Your task to perform on an android device: Go to network settings Image 0: 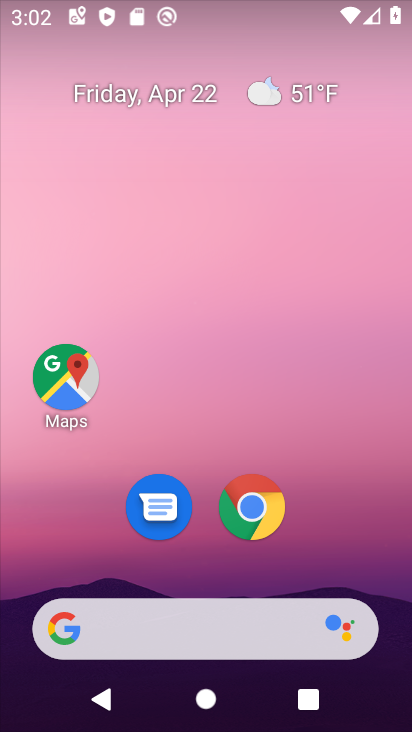
Step 0: drag from (200, 551) to (268, 107)
Your task to perform on an android device: Go to network settings Image 1: 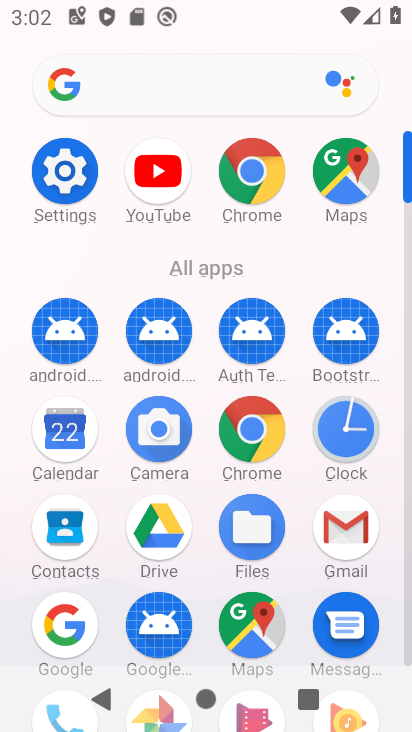
Step 1: click (59, 168)
Your task to perform on an android device: Go to network settings Image 2: 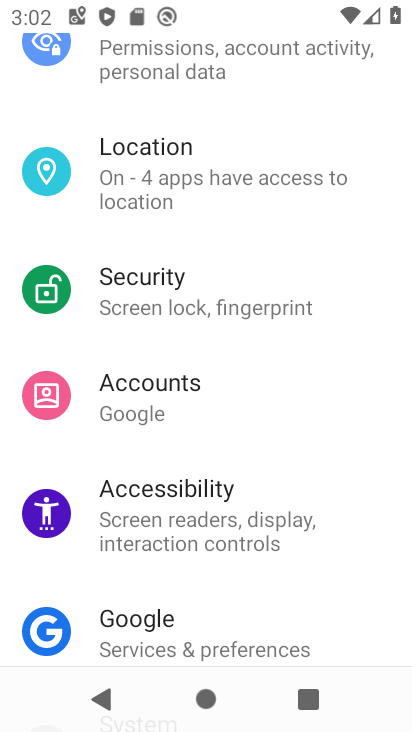
Step 2: drag from (239, 209) to (200, 686)
Your task to perform on an android device: Go to network settings Image 3: 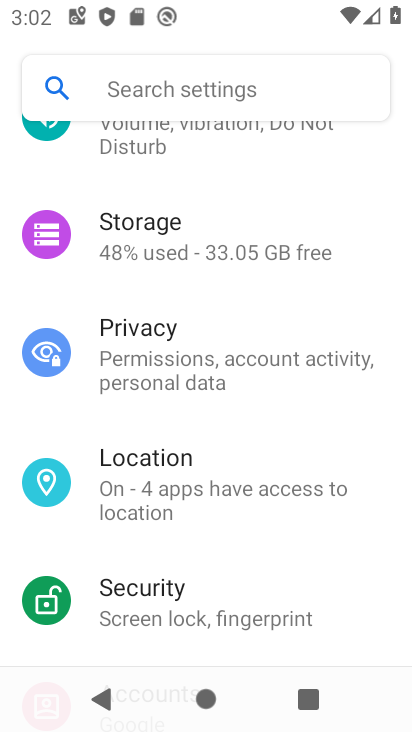
Step 3: drag from (226, 254) to (201, 700)
Your task to perform on an android device: Go to network settings Image 4: 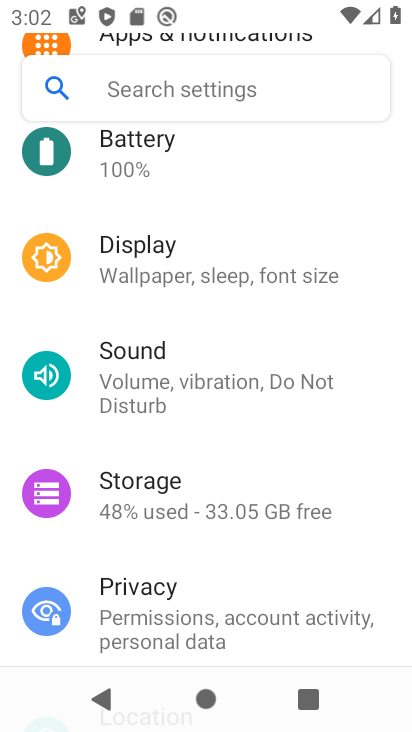
Step 4: drag from (197, 208) to (134, 726)
Your task to perform on an android device: Go to network settings Image 5: 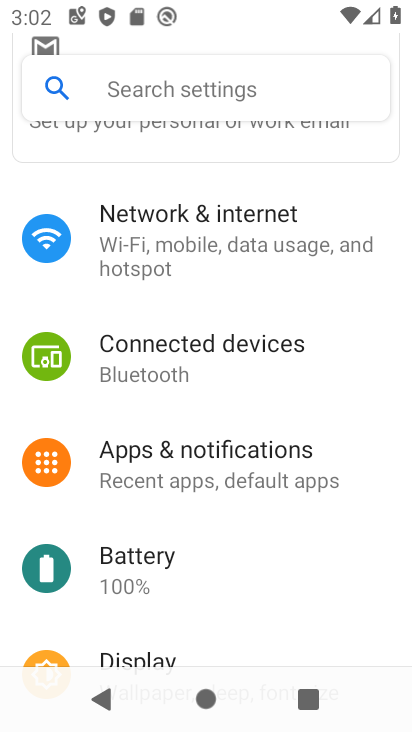
Step 5: click (185, 230)
Your task to perform on an android device: Go to network settings Image 6: 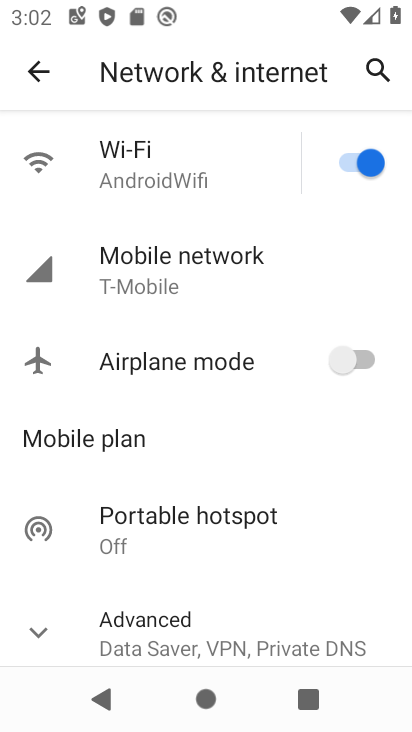
Step 6: task complete